Your task to perform on an android device: Open ESPN.com Image 0: 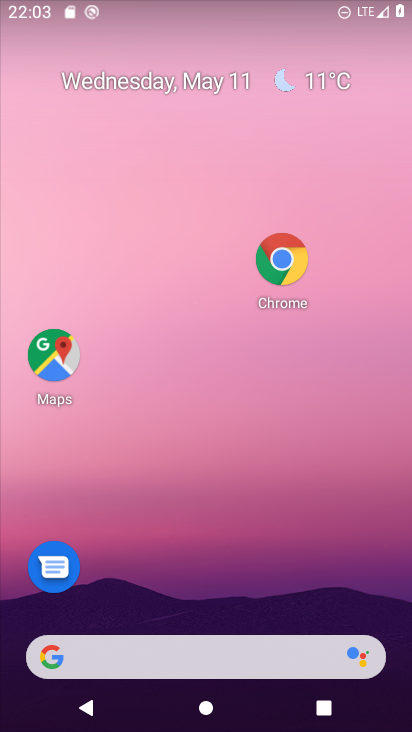
Step 0: drag from (197, 652) to (245, 104)
Your task to perform on an android device: Open ESPN.com Image 1: 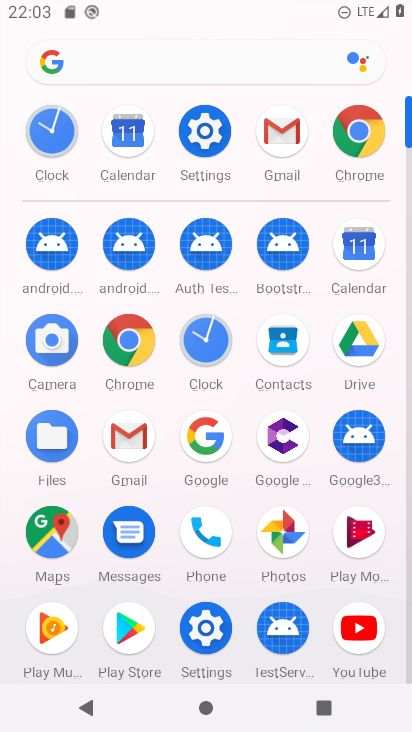
Step 1: click (354, 134)
Your task to perform on an android device: Open ESPN.com Image 2: 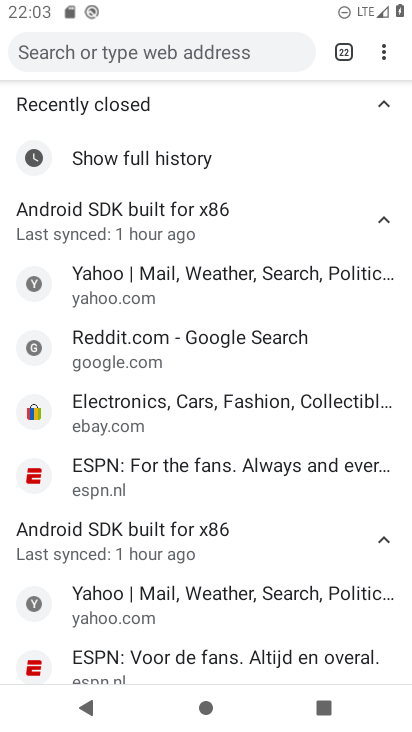
Step 2: drag from (385, 57) to (280, 100)
Your task to perform on an android device: Open ESPN.com Image 3: 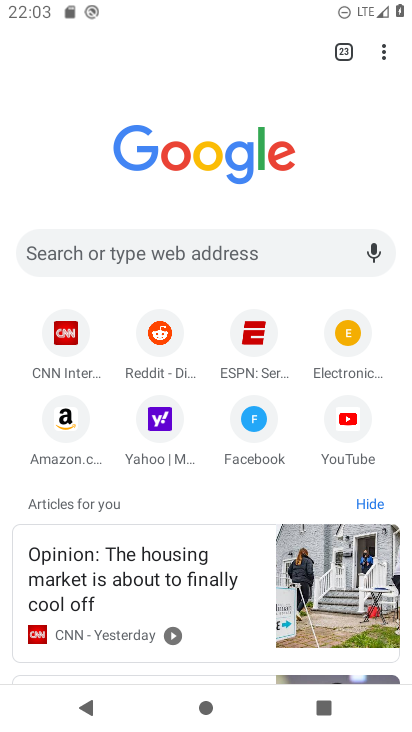
Step 3: click (251, 335)
Your task to perform on an android device: Open ESPN.com Image 4: 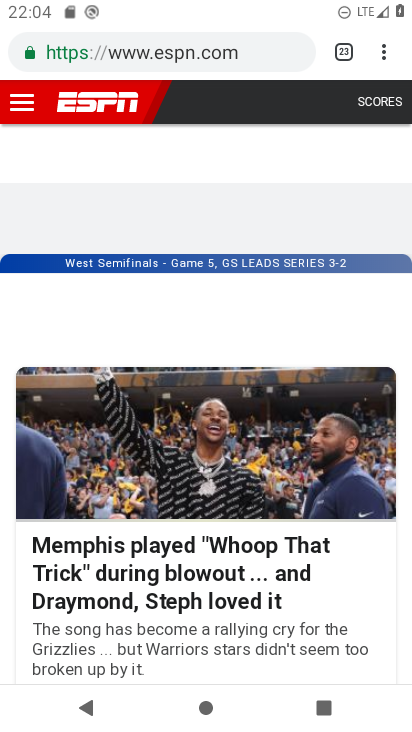
Step 4: task complete